Your task to perform on an android device: Open the web browser Image 0: 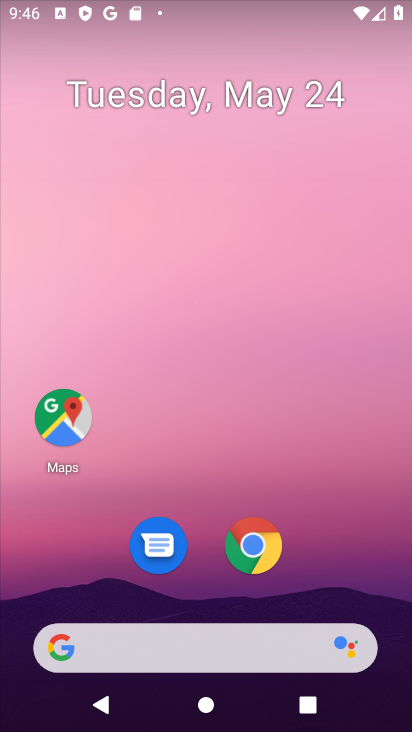
Step 0: click (257, 546)
Your task to perform on an android device: Open the web browser Image 1: 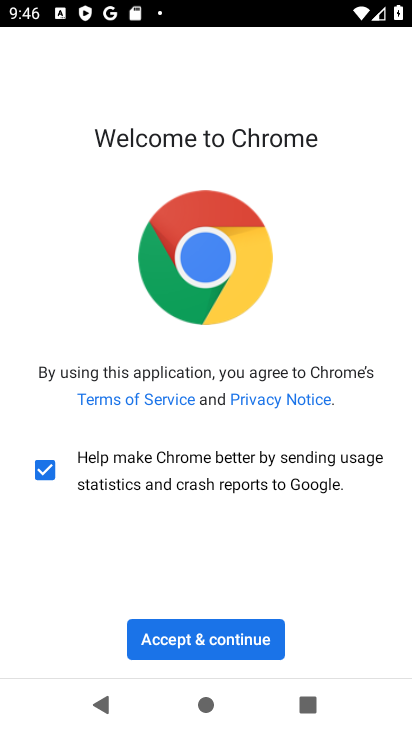
Step 1: click (254, 634)
Your task to perform on an android device: Open the web browser Image 2: 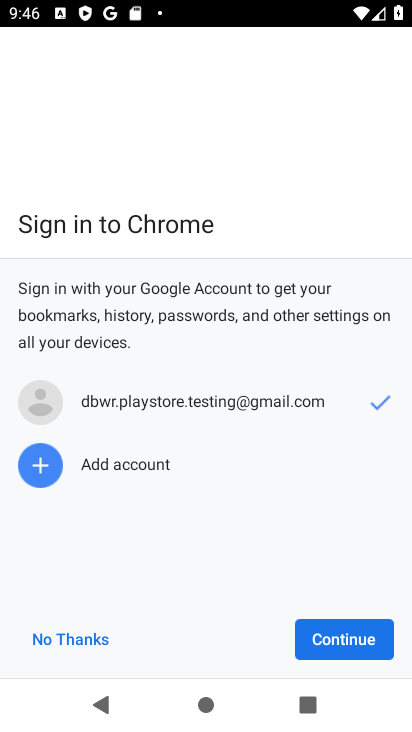
Step 2: click (314, 639)
Your task to perform on an android device: Open the web browser Image 3: 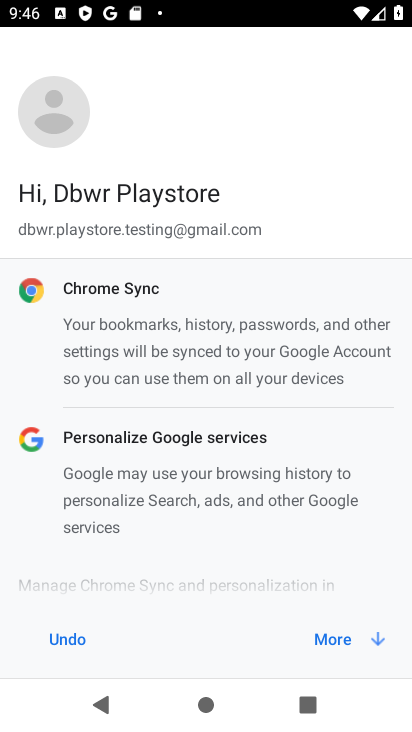
Step 3: click (324, 636)
Your task to perform on an android device: Open the web browser Image 4: 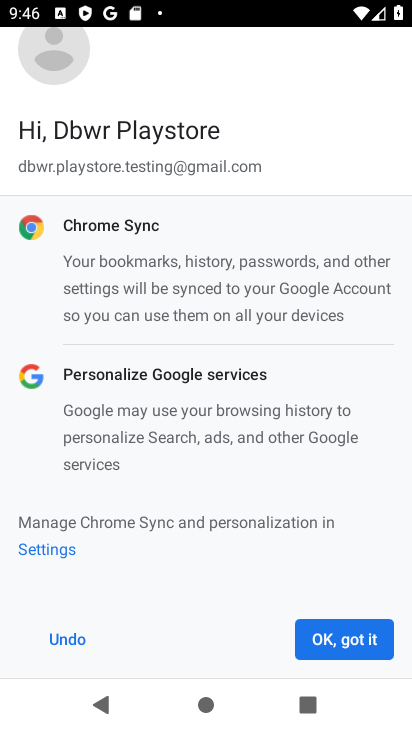
Step 4: click (328, 637)
Your task to perform on an android device: Open the web browser Image 5: 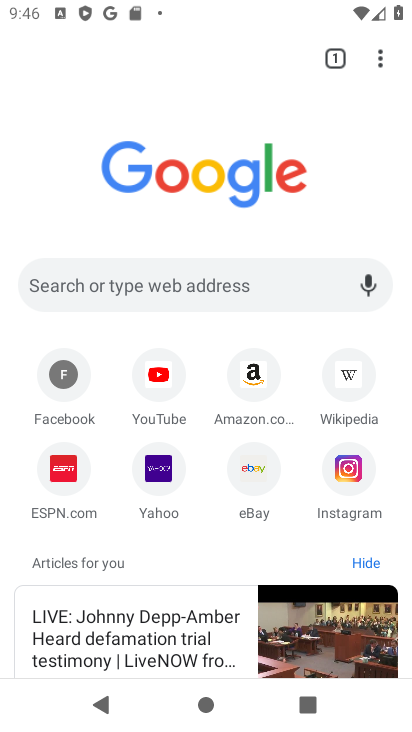
Step 5: task complete